Your task to perform on an android device: Open Chrome and go to the settings page Image 0: 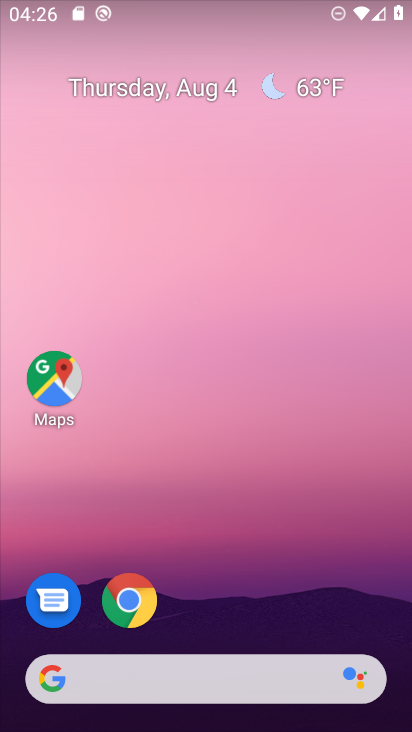
Step 0: drag from (252, 603) to (224, 102)
Your task to perform on an android device: Open Chrome and go to the settings page Image 1: 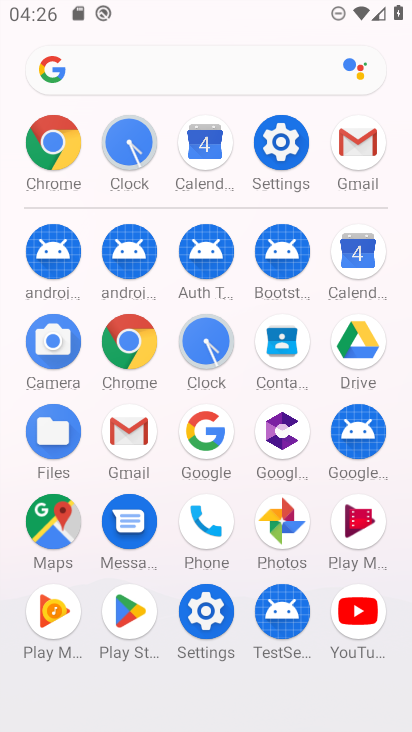
Step 1: click (135, 332)
Your task to perform on an android device: Open Chrome and go to the settings page Image 2: 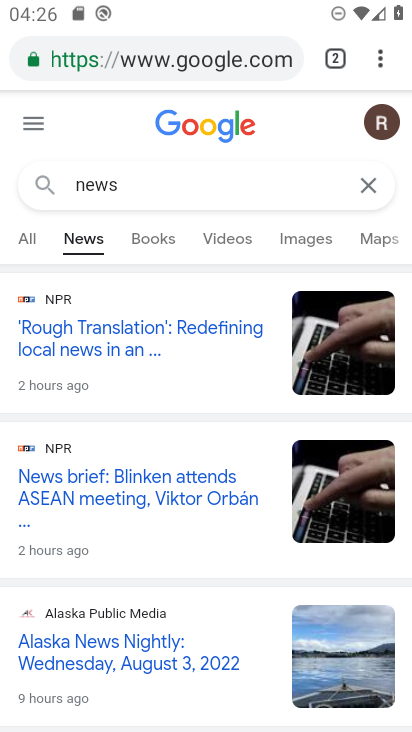
Step 2: task complete